Your task to perform on an android device: add a contact in the contacts app Image 0: 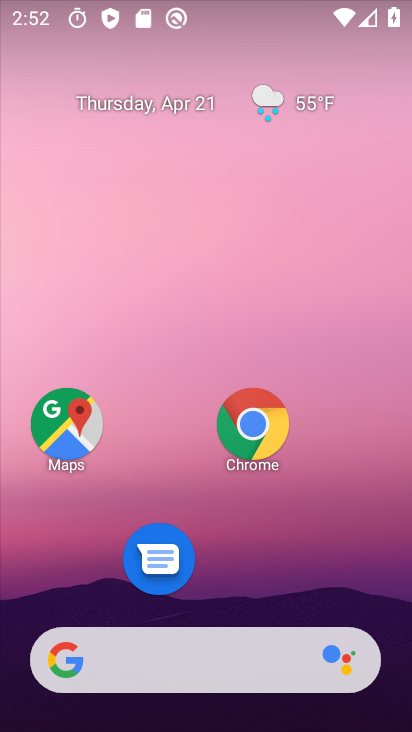
Step 0: drag from (268, 549) to (204, 95)
Your task to perform on an android device: add a contact in the contacts app Image 1: 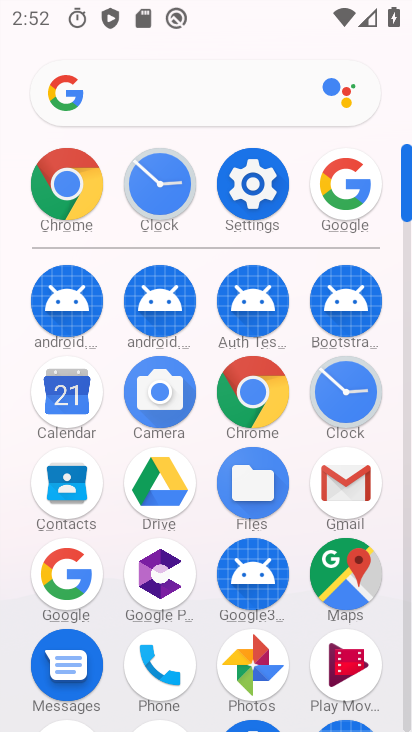
Step 1: click (73, 494)
Your task to perform on an android device: add a contact in the contacts app Image 2: 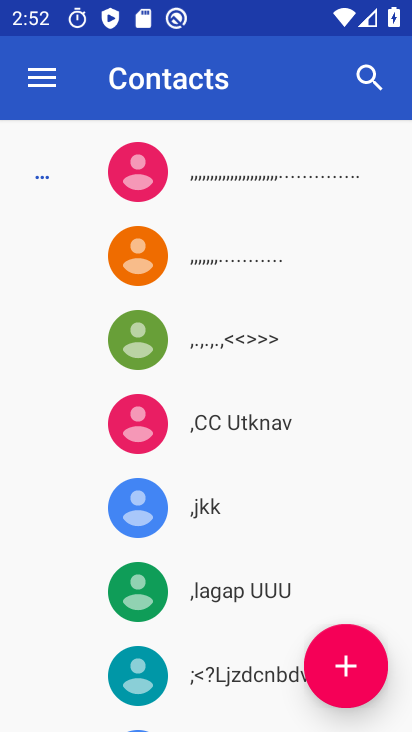
Step 2: click (346, 657)
Your task to perform on an android device: add a contact in the contacts app Image 3: 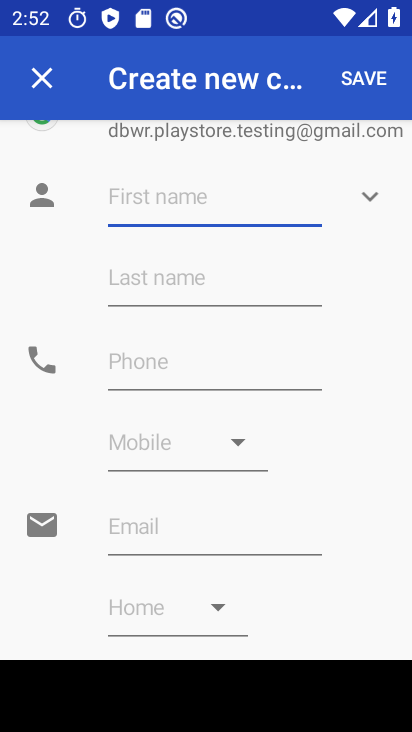
Step 3: type "dgdg"
Your task to perform on an android device: add a contact in the contacts app Image 4: 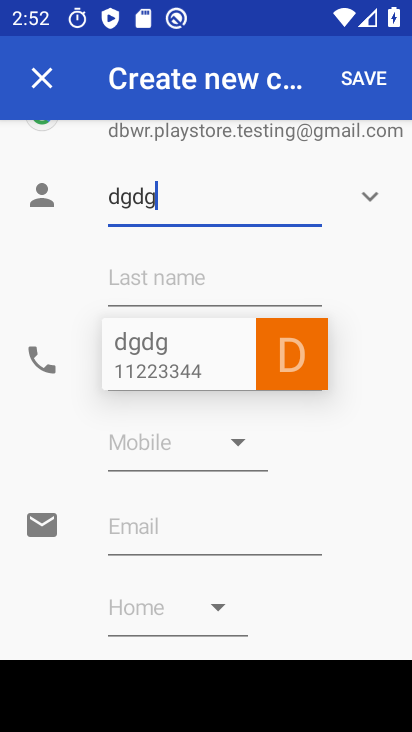
Step 4: click (364, 73)
Your task to perform on an android device: add a contact in the contacts app Image 5: 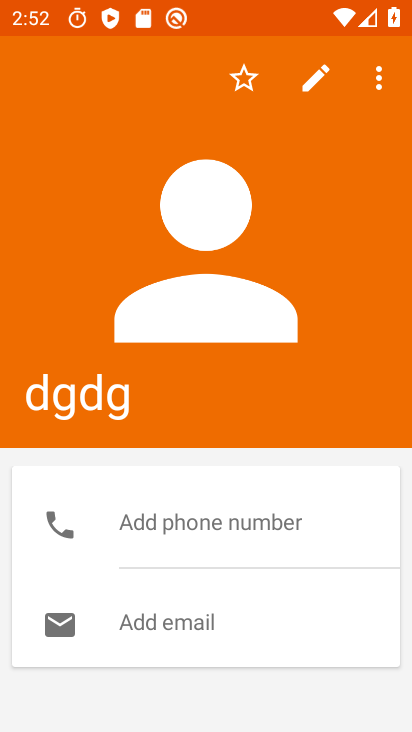
Step 5: task complete